Your task to perform on an android device: open a new tab in the chrome app Image 0: 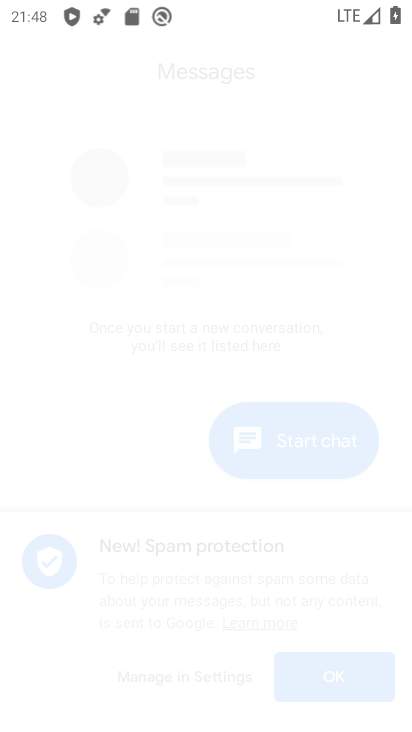
Step 0: press home button
Your task to perform on an android device: open a new tab in the chrome app Image 1: 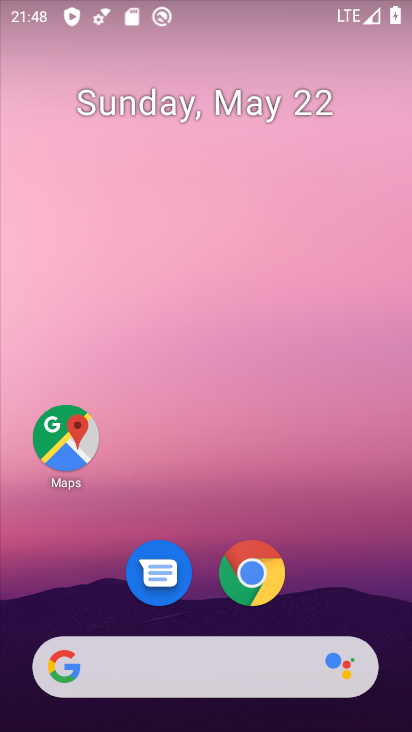
Step 1: click (279, 580)
Your task to perform on an android device: open a new tab in the chrome app Image 2: 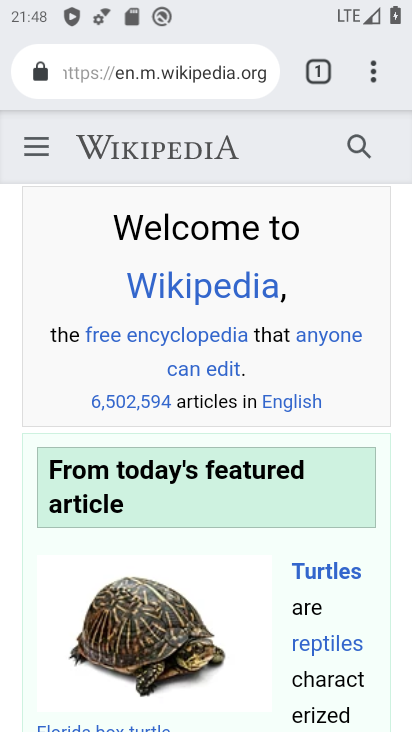
Step 2: task complete